Your task to perform on an android device: toggle show notifications on the lock screen Image 0: 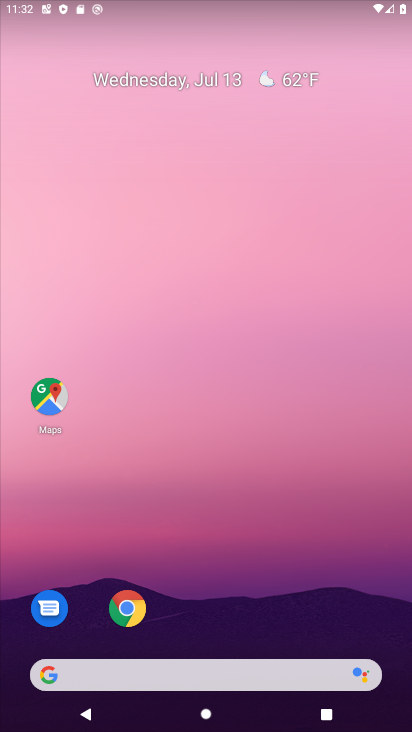
Step 0: drag from (245, 695) to (238, 140)
Your task to perform on an android device: toggle show notifications on the lock screen Image 1: 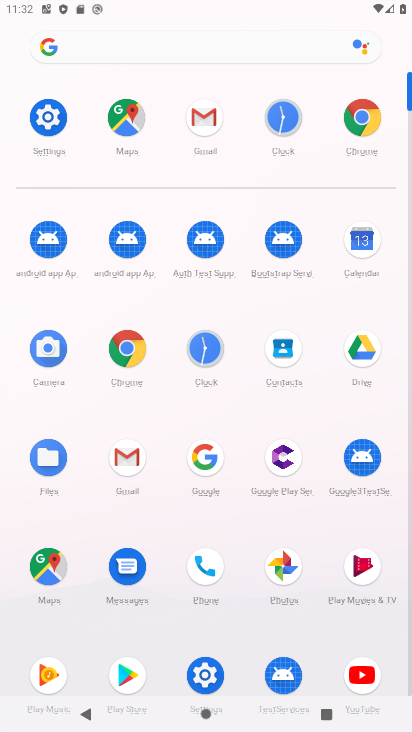
Step 1: click (43, 119)
Your task to perform on an android device: toggle show notifications on the lock screen Image 2: 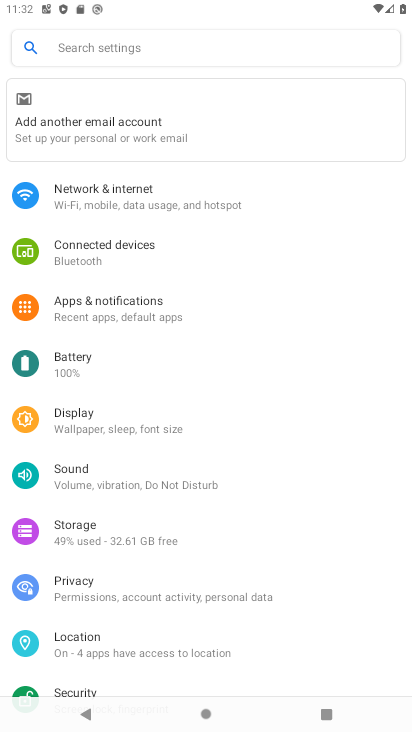
Step 2: click (78, 302)
Your task to perform on an android device: toggle show notifications on the lock screen Image 3: 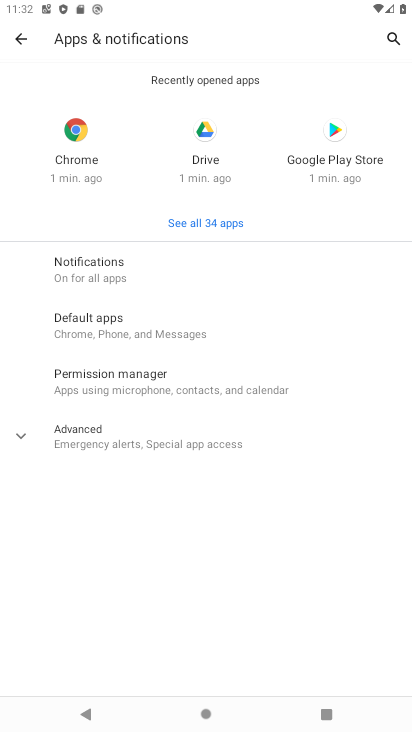
Step 3: click (78, 272)
Your task to perform on an android device: toggle show notifications on the lock screen Image 4: 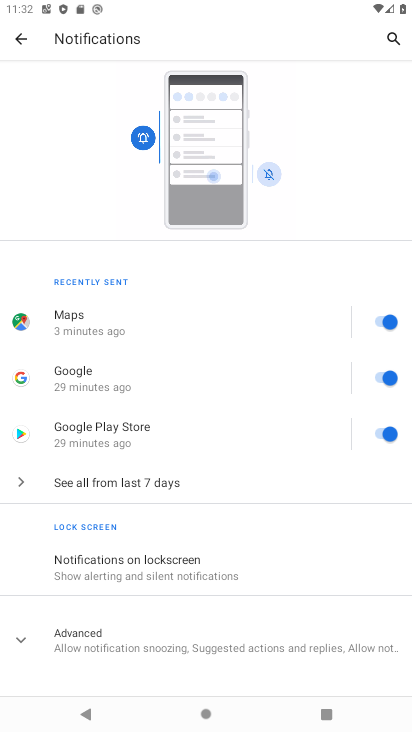
Step 4: click (116, 567)
Your task to perform on an android device: toggle show notifications on the lock screen Image 5: 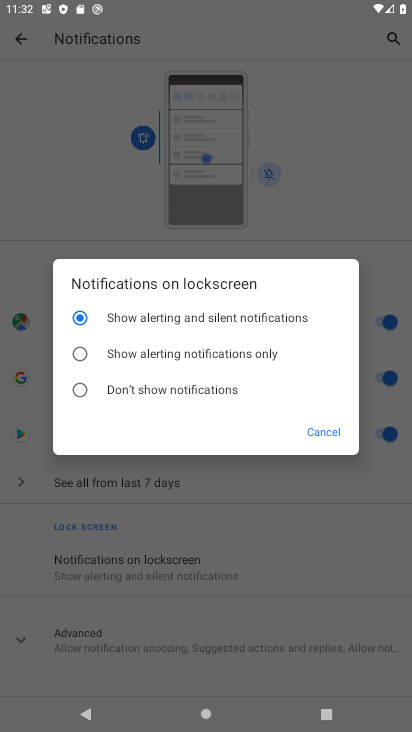
Step 5: click (77, 389)
Your task to perform on an android device: toggle show notifications on the lock screen Image 6: 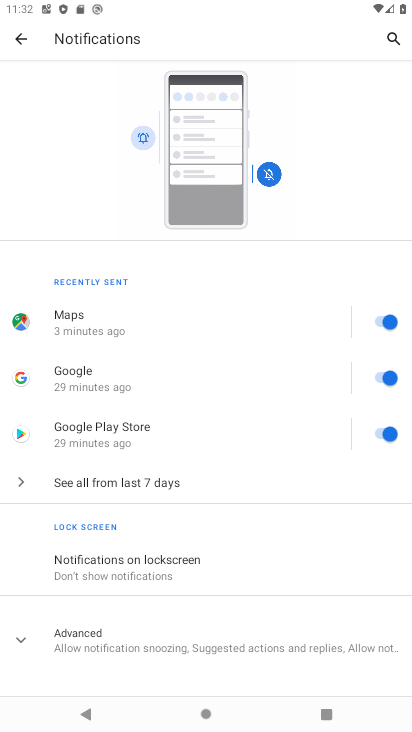
Step 6: task complete